Your task to perform on an android device: allow cookies in the chrome app Image 0: 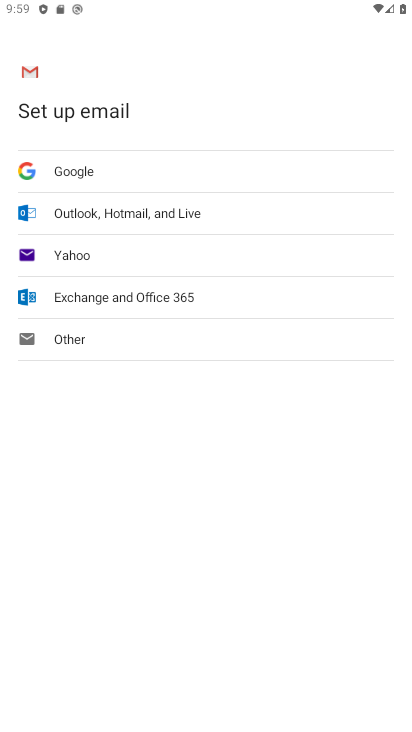
Step 0: press home button
Your task to perform on an android device: allow cookies in the chrome app Image 1: 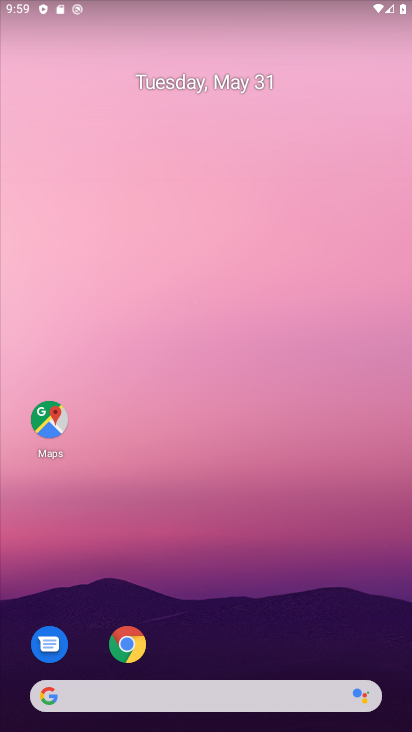
Step 1: click (131, 647)
Your task to perform on an android device: allow cookies in the chrome app Image 2: 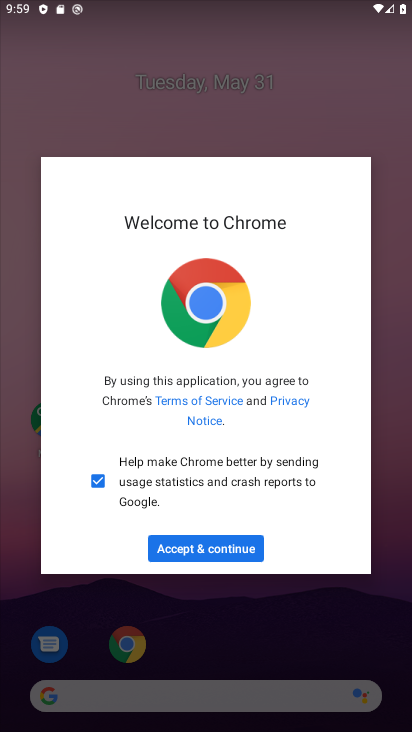
Step 2: click (209, 548)
Your task to perform on an android device: allow cookies in the chrome app Image 3: 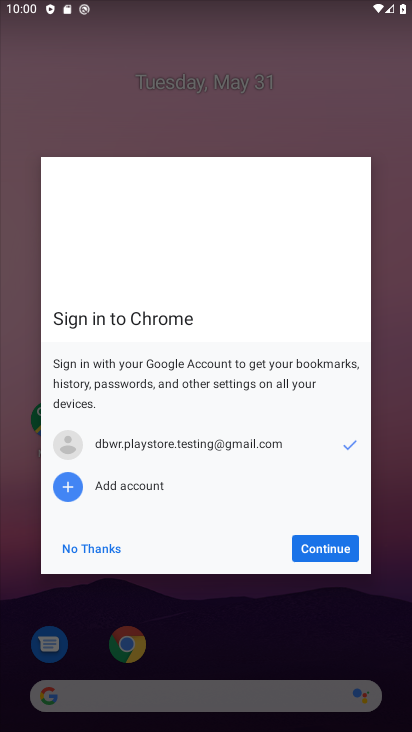
Step 3: click (316, 551)
Your task to perform on an android device: allow cookies in the chrome app Image 4: 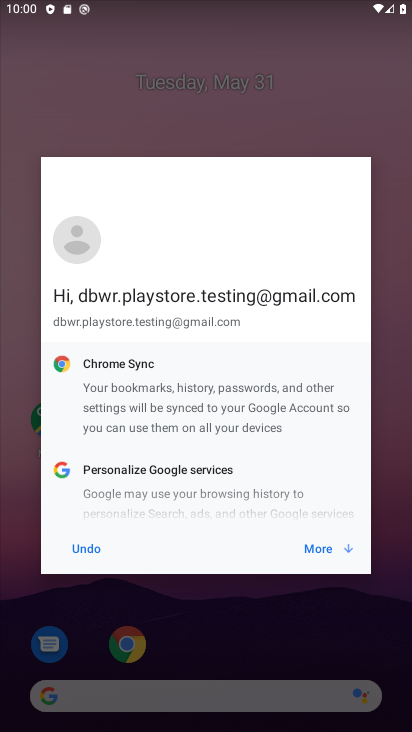
Step 4: click (317, 552)
Your task to perform on an android device: allow cookies in the chrome app Image 5: 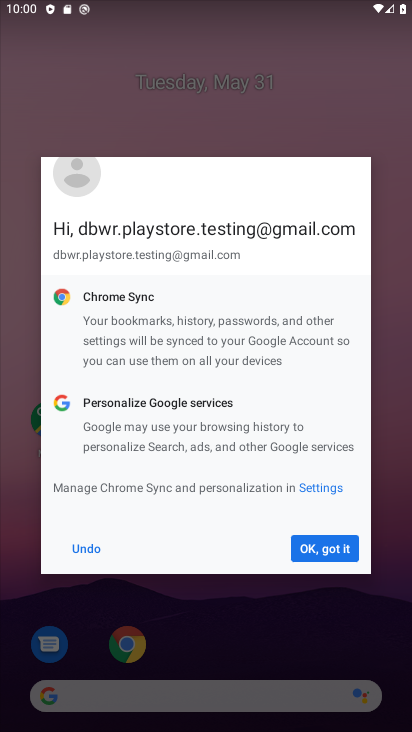
Step 5: click (319, 555)
Your task to perform on an android device: allow cookies in the chrome app Image 6: 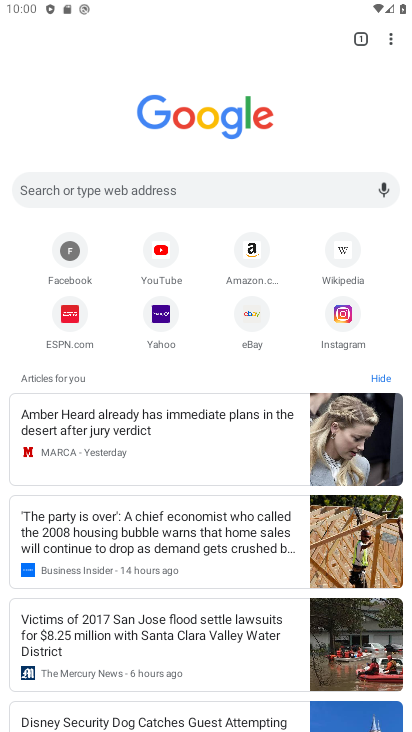
Step 6: click (393, 29)
Your task to perform on an android device: allow cookies in the chrome app Image 7: 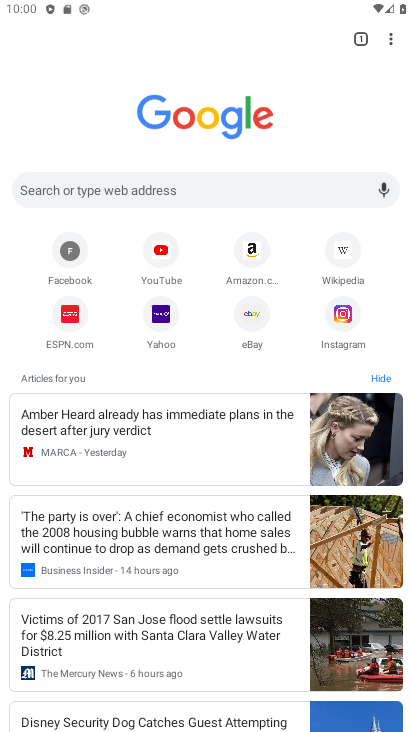
Step 7: click (390, 36)
Your task to perform on an android device: allow cookies in the chrome app Image 8: 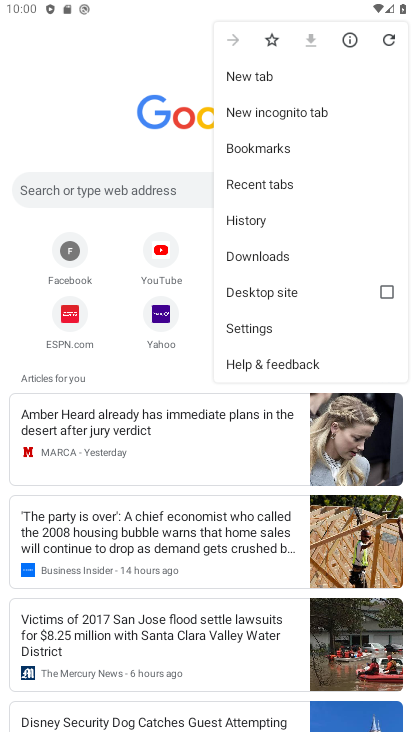
Step 8: click (244, 330)
Your task to perform on an android device: allow cookies in the chrome app Image 9: 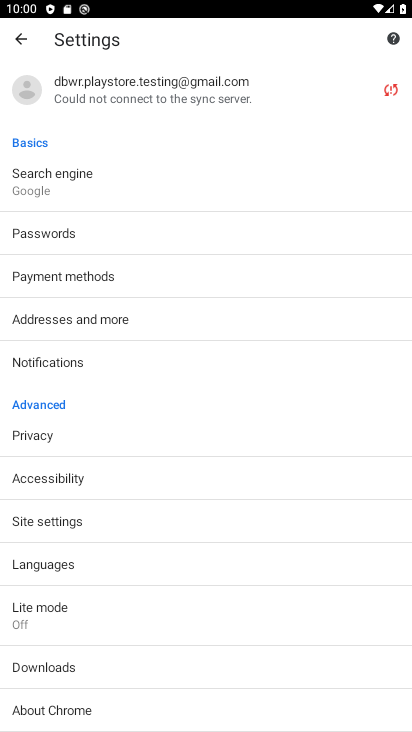
Step 9: click (41, 514)
Your task to perform on an android device: allow cookies in the chrome app Image 10: 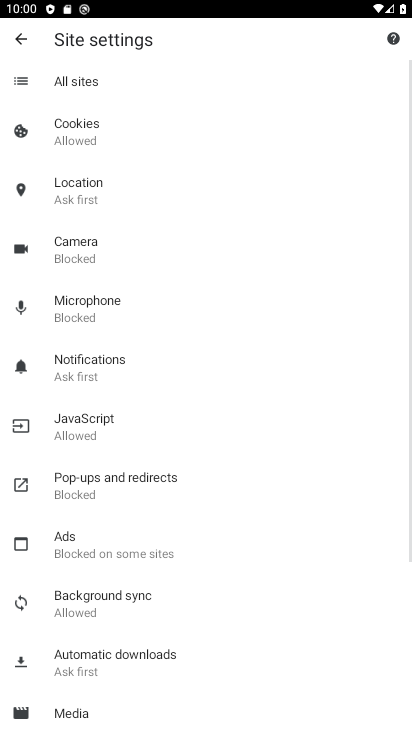
Step 10: click (76, 137)
Your task to perform on an android device: allow cookies in the chrome app Image 11: 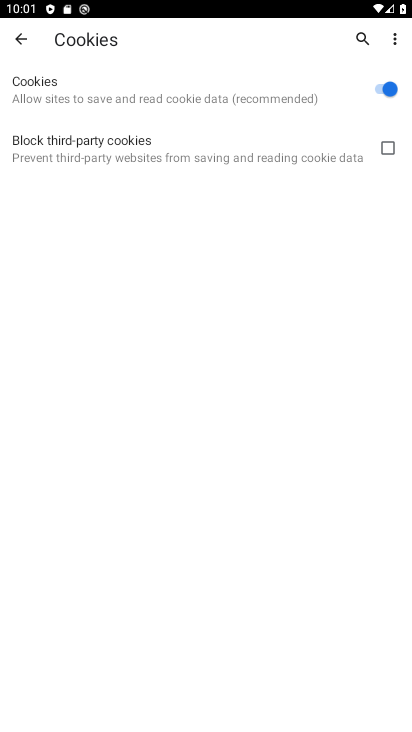
Step 11: task complete